Your task to perform on an android device: change timer sound Image 0: 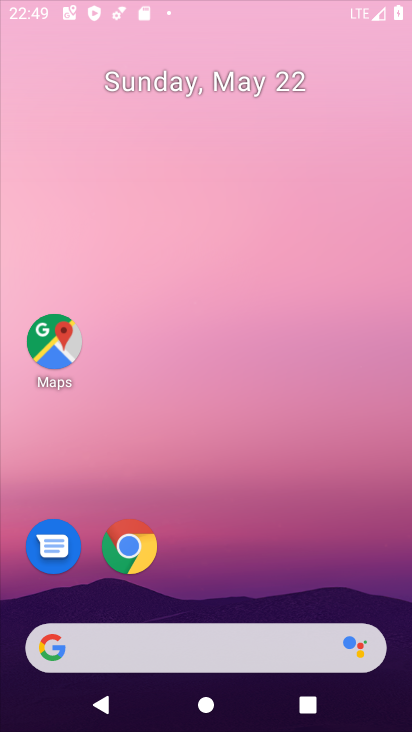
Step 0: click (259, 79)
Your task to perform on an android device: change timer sound Image 1: 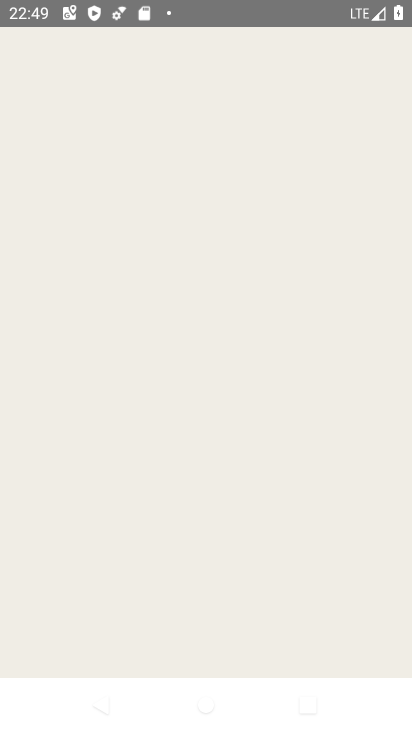
Step 1: press home button
Your task to perform on an android device: change timer sound Image 2: 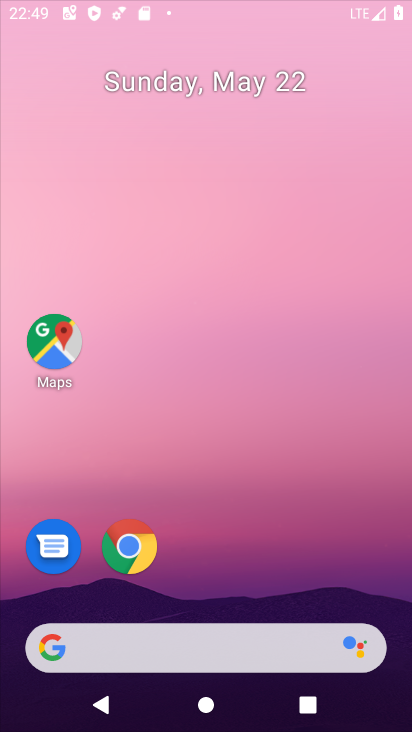
Step 2: drag from (187, 575) to (272, 60)
Your task to perform on an android device: change timer sound Image 3: 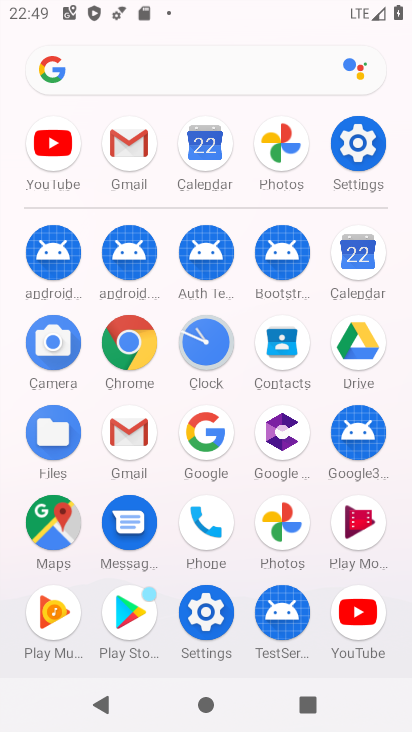
Step 3: click (207, 352)
Your task to perform on an android device: change timer sound Image 4: 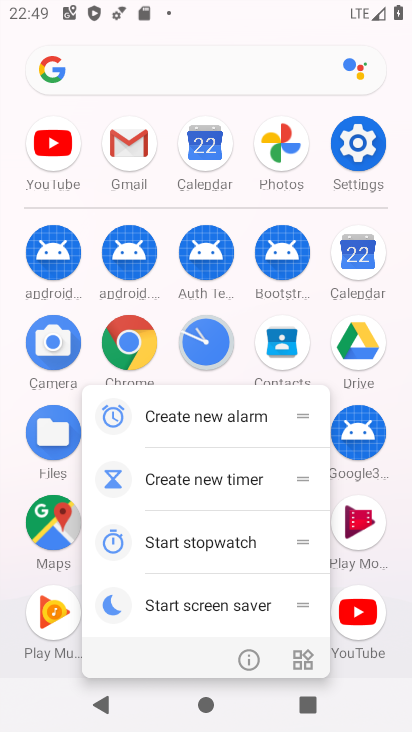
Step 4: click (257, 651)
Your task to perform on an android device: change timer sound Image 5: 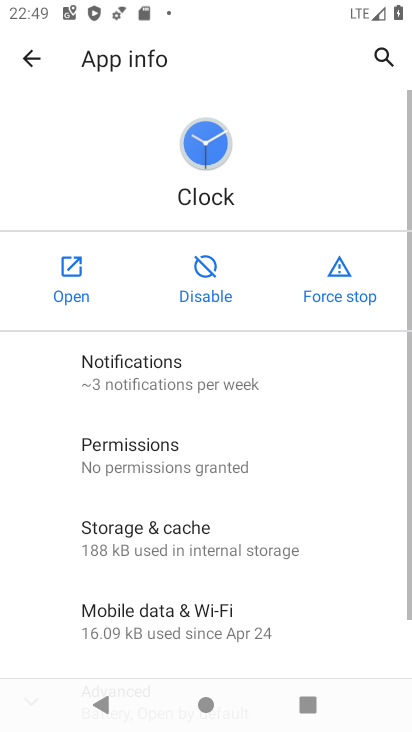
Step 5: click (70, 254)
Your task to perform on an android device: change timer sound Image 6: 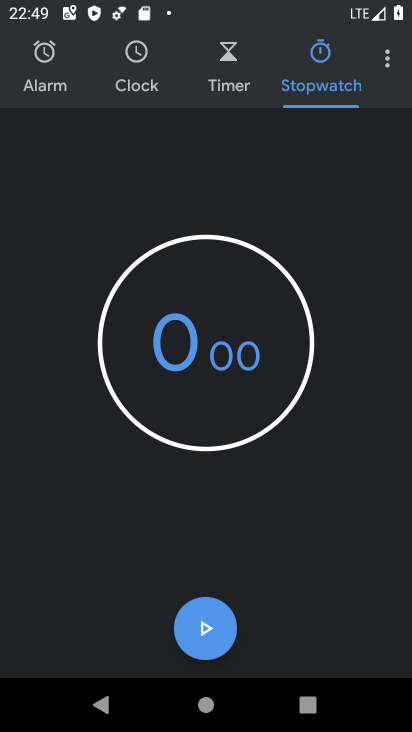
Step 6: click (393, 58)
Your task to perform on an android device: change timer sound Image 7: 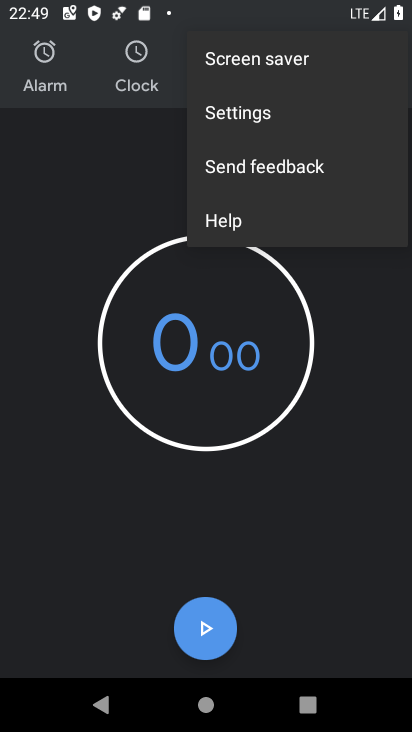
Step 7: click (278, 99)
Your task to perform on an android device: change timer sound Image 8: 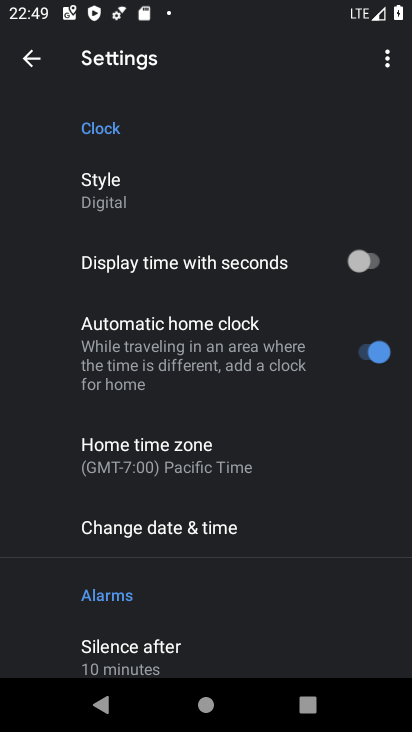
Step 8: drag from (206, 601) to (277, 211)
Your task to perform on an android device: change timer sound Image 9: 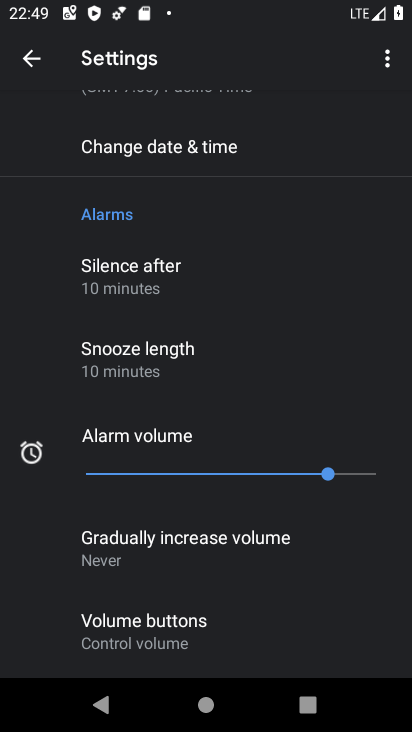
Step 9: drag from (221, 529) to (323, 133)
Your task to perform on an android device: change timer sound Image 10: 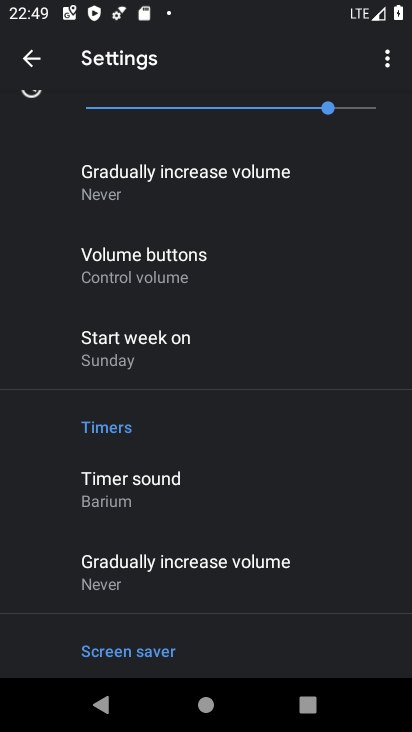
Step 10: drag from (258, 211) to (332, 176)
Your task to perform on an android device: change timer sound Image 11: 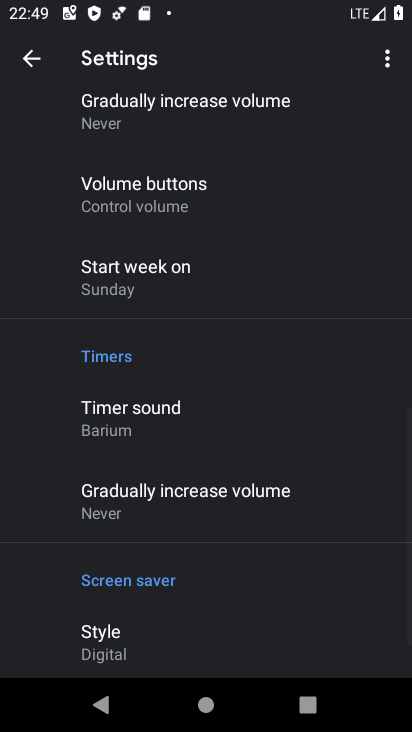
Step 11: click (188, 444)
Your task to perform on an android device: change timer sound Image 12: 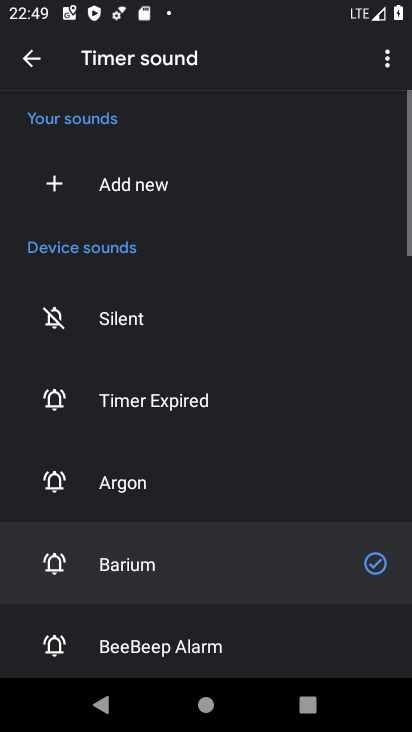
Step 12: click (213, 641)
Your task to perform on an android device: change timer sound Image 13: 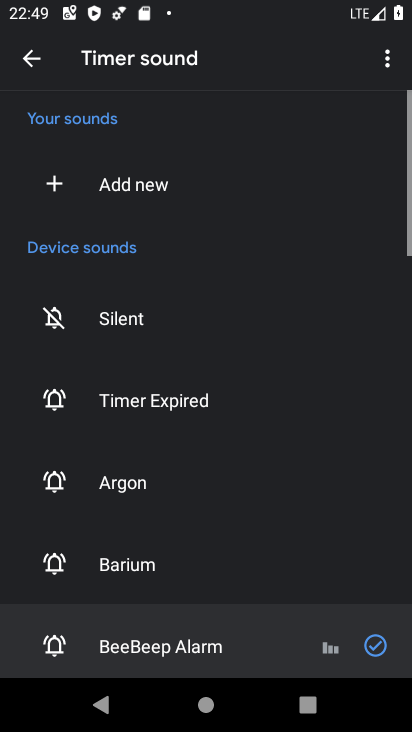
Step 13: task complete